Your task to perform on an android device: Show me productivity apps on the Play Store Image 0: 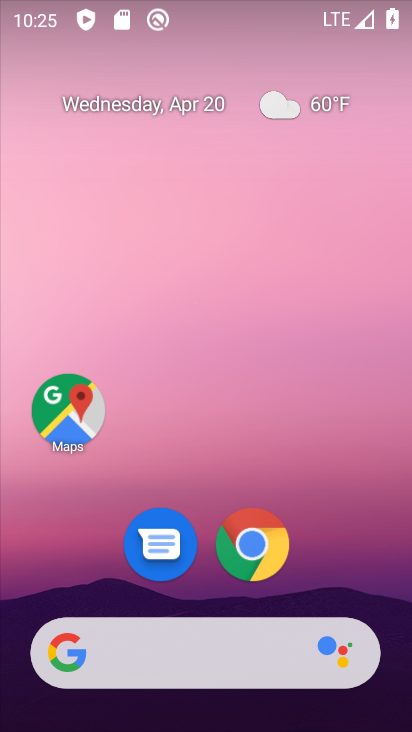
Step 0: drag from (364, 570) to (318, 85)
Your task to perform on an android device: Show me productivity apps on the Play Store Image 1: 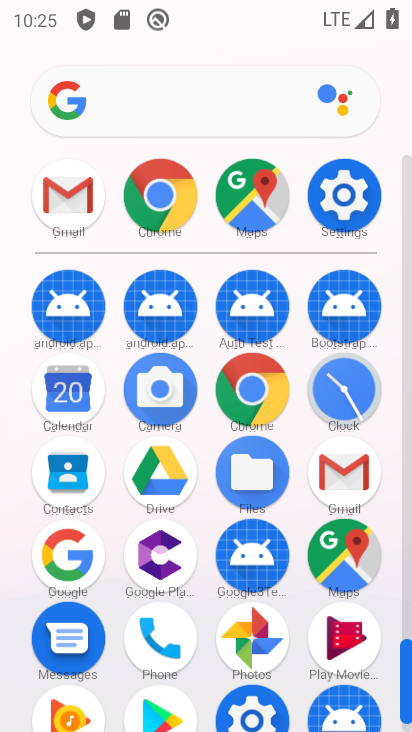
Step 1: click (165, 719)
Your task to perform on an android device: Show me productivity apps on the Play Store Image 2: 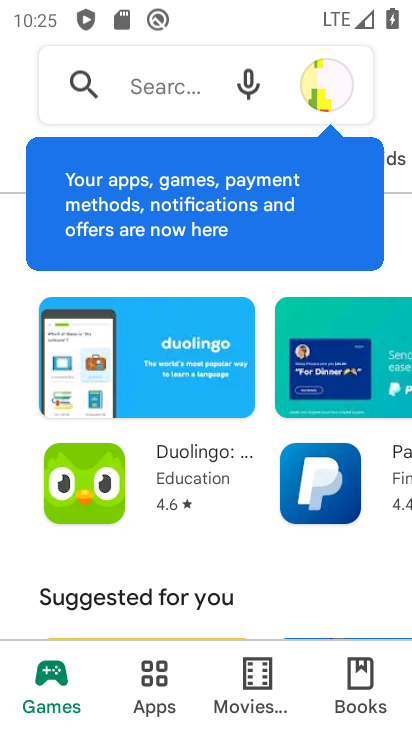
Step 2: drag from (225, 607) to (190, 218)
Your task to perform on an android device: Show me productivity apps on the Play Store Image 3: 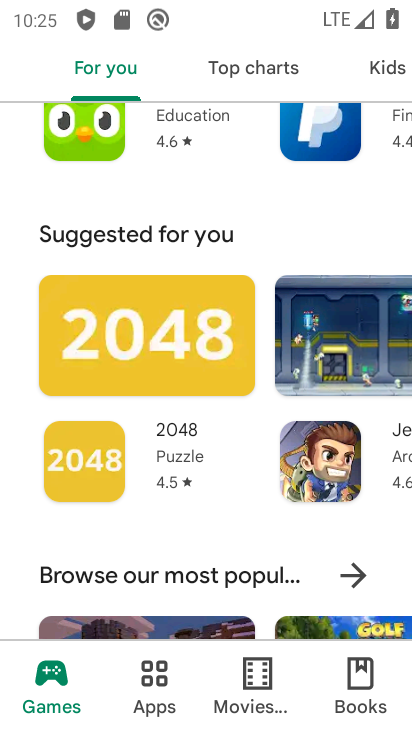
Step 3: click (160, 684)
Your task to perform on an android device: Show me productivity apps on the Play Store Image 4: 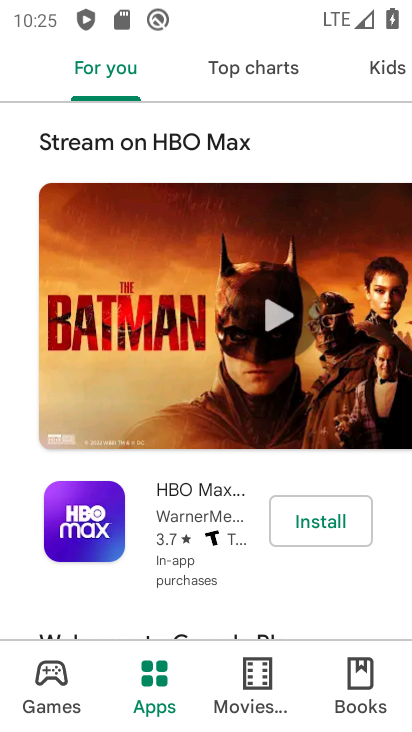
Step 4: task complete